Your task to perform on an android device: Go to location settings Image 0: 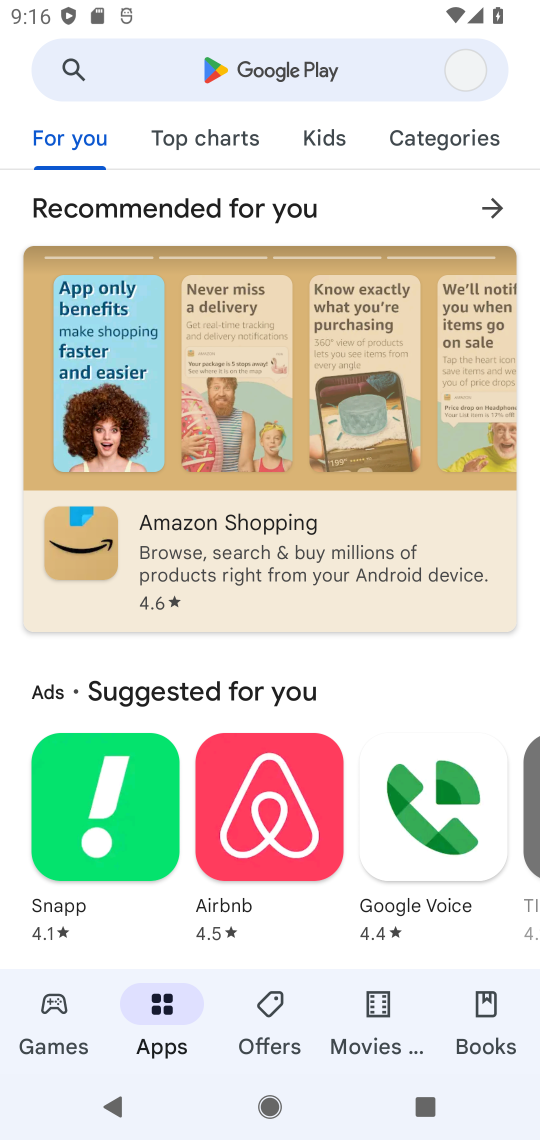
Step 0: press home button
Your task to perform on an android device: Go to location settings Image 1: 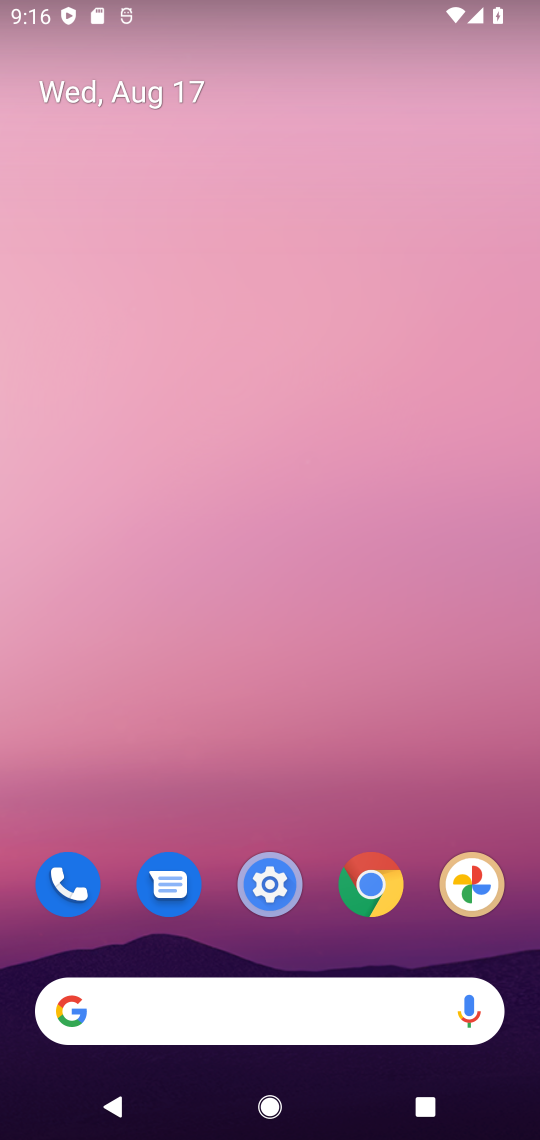
Step 1: click (260, 891)
Your task to perform on an android device: Go to location settings Image 2: 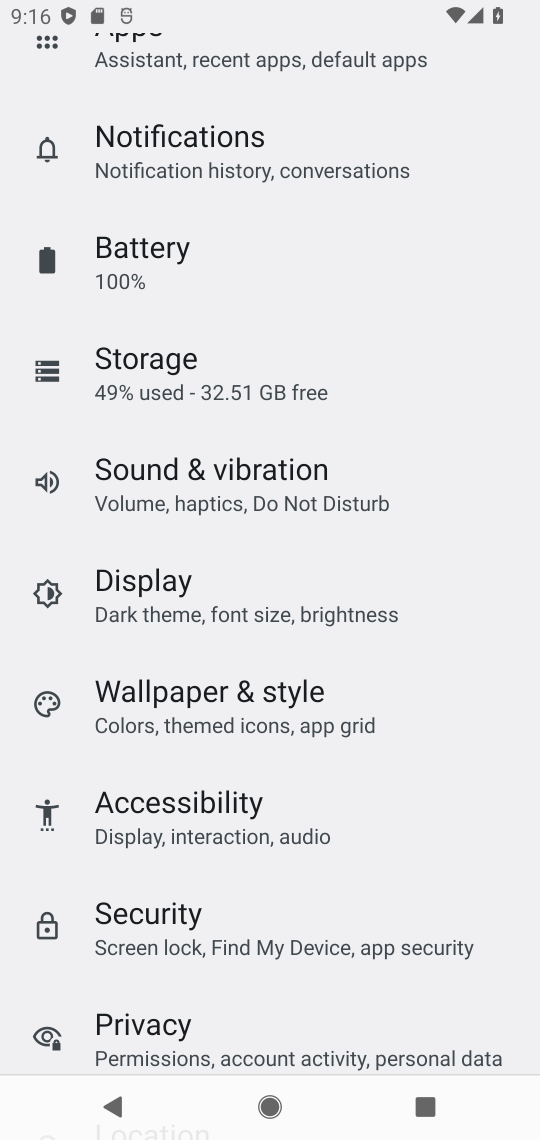
Step 2: drag from (280, 880) to (274, 369)
Your task to perform on an android device: Go to location settings Image 3: 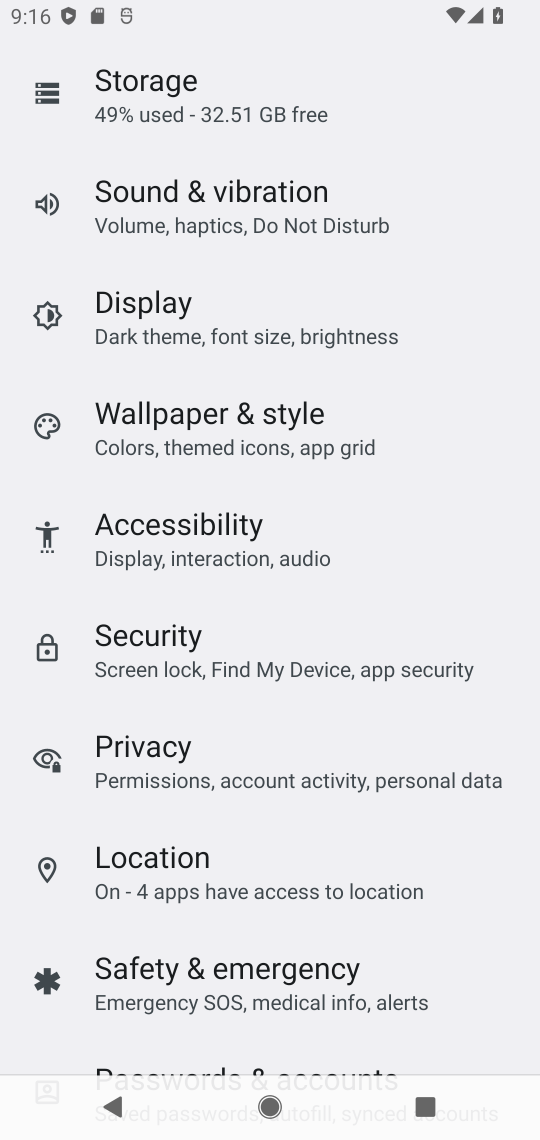
Step 3: click (154, 855)
Your task to perform on an android device: Go to location settings Image 4: 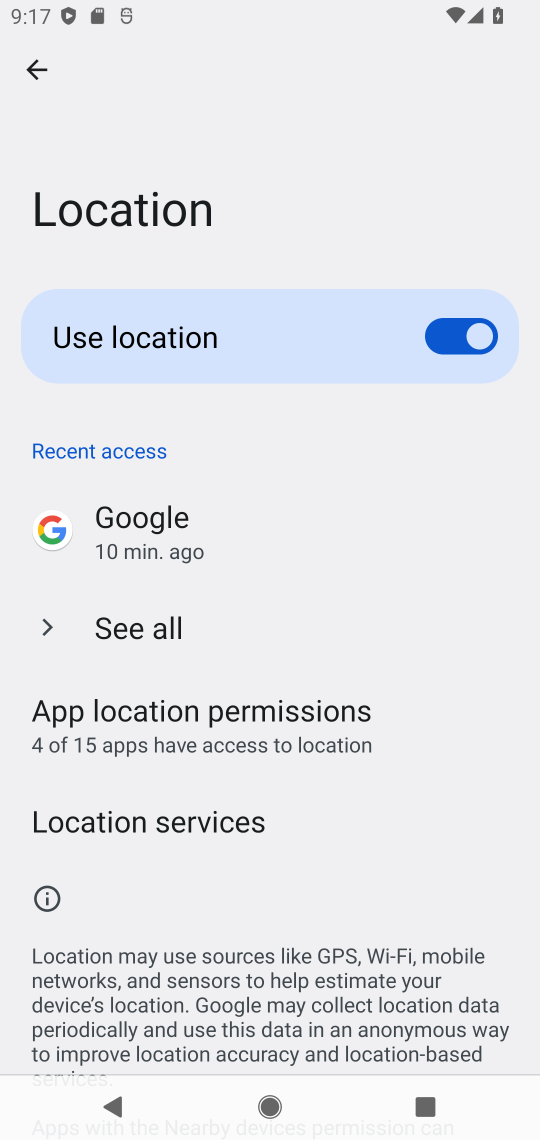
Step 4: task complete